Your task to perform on an android device: Open Google Chrome Image 0: 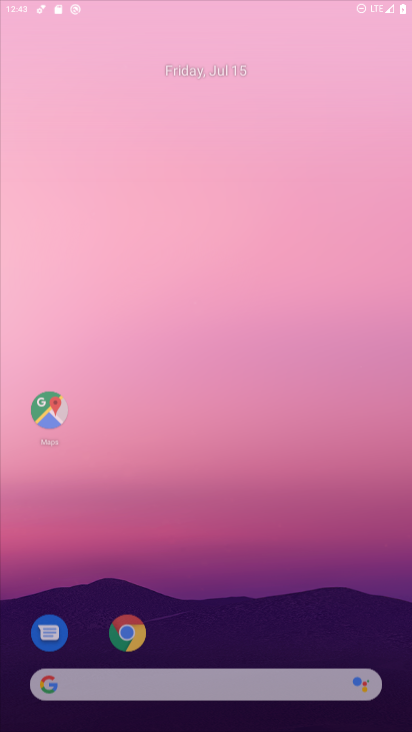
Step 0: click (140, 638)
Your task to perform on an android device: Open Google Chrome Image 1: 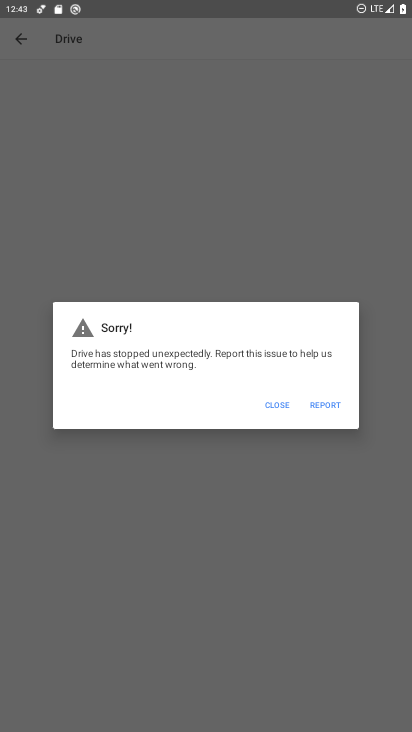
Step 1: click (269, 415)
Your task to perform on an android device: Open Google Chrome Image 2: 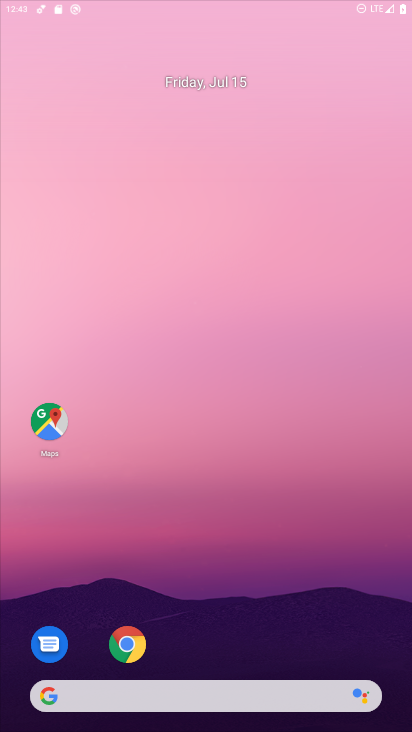
Step 2: press home button
Your task to perform on an android device: Open Google Chrome Image 3: 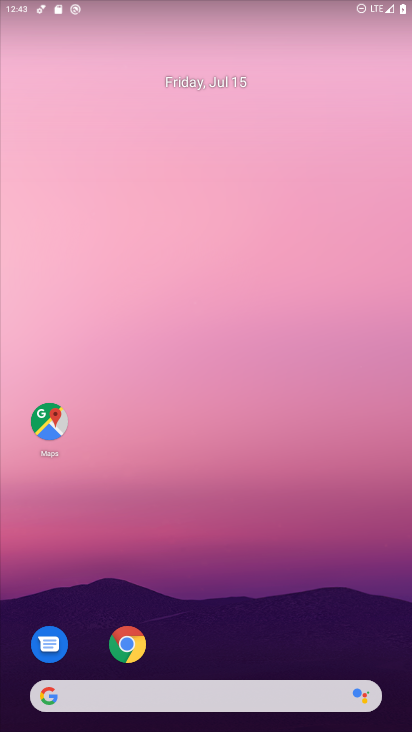
Step 3: click (132, 648)
Your task to perform on an android device: Open Google Chrome Image 4: 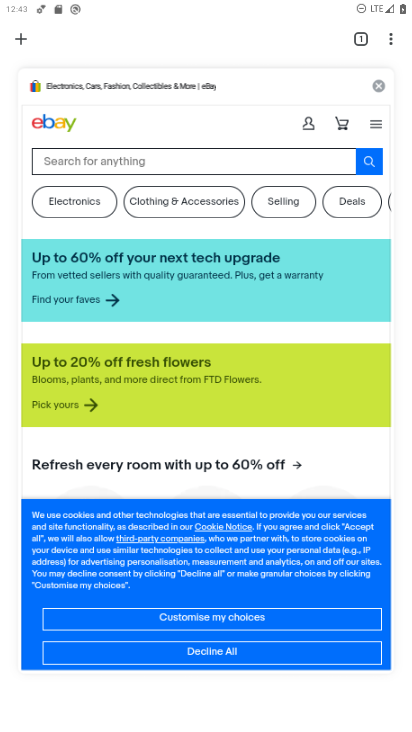
Step 4: task complete